Your task to perform on an android device: See recent photos Image 0: 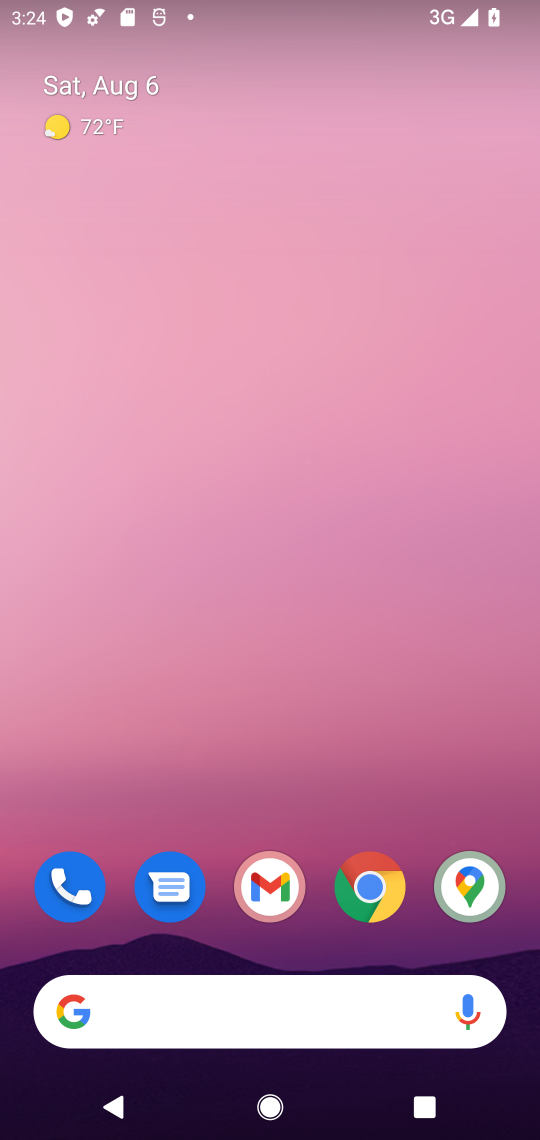
Step 0: press home button
Your task to perform on an android device: See recent photos Image 1: 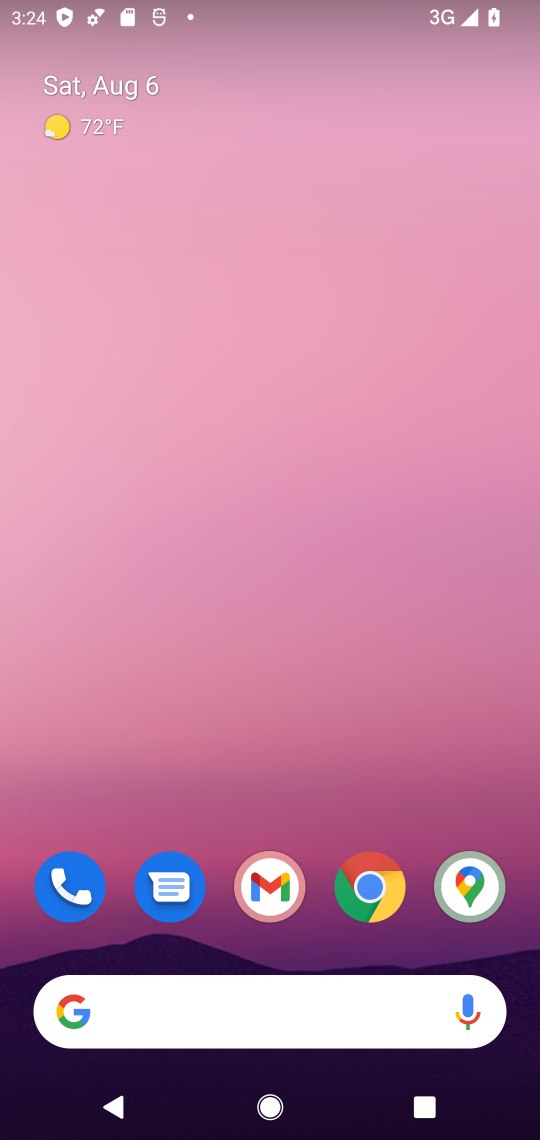
Step 1: drag from (410, 748) to (386, 342)
Your task to perform on an android device: See recent photos Image 2: 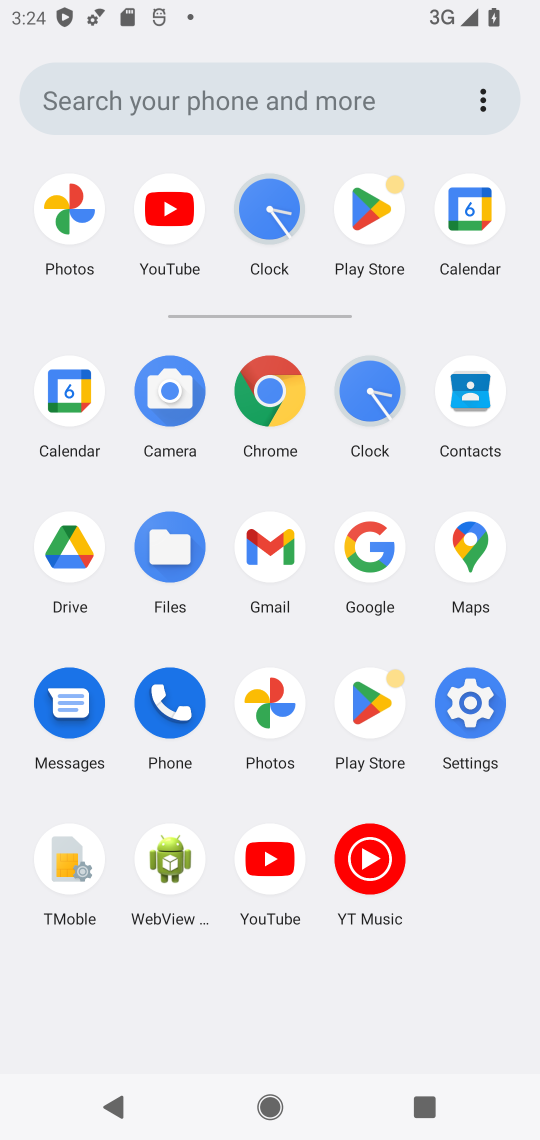
Step 2: click (255, 692)
Your task to perform on an android device: See recent photos Image 3: 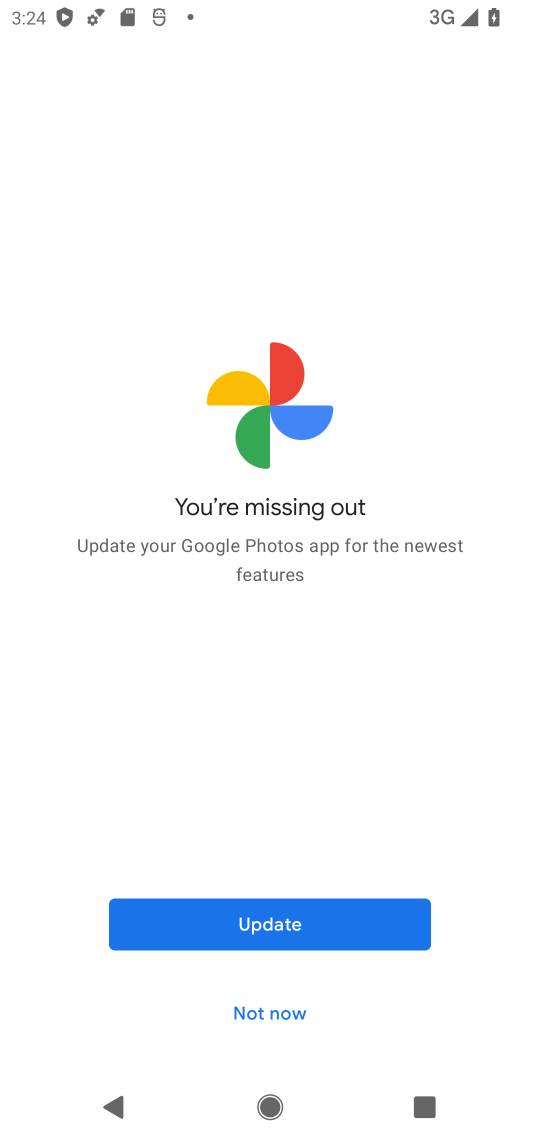
Step 3: click (257, 1006)
Your task to perform on an android device: See recent photos Image 4: 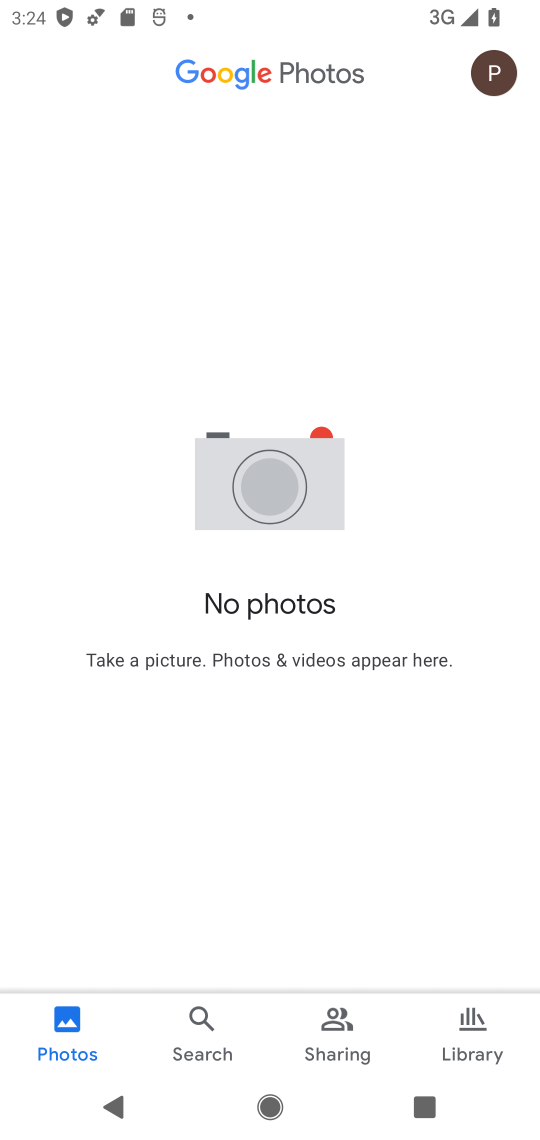
Step 4: task complete